Your task to perform on an android device: open wifi settings Image 0: 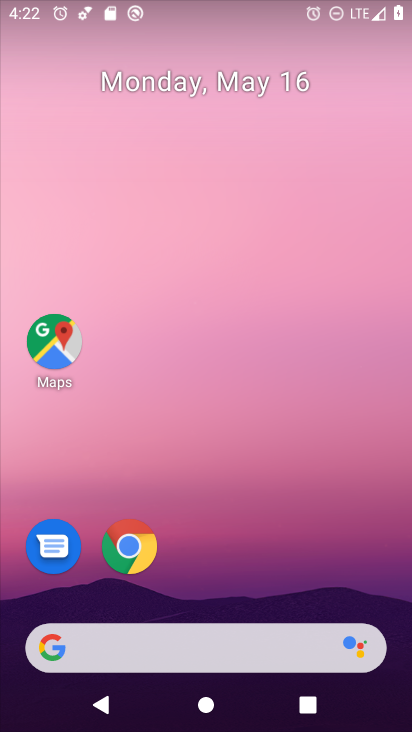
Step 0: drag from (325, 569) to (312, 71)
Your task to perform on an android device: open wifi settings Image 1: 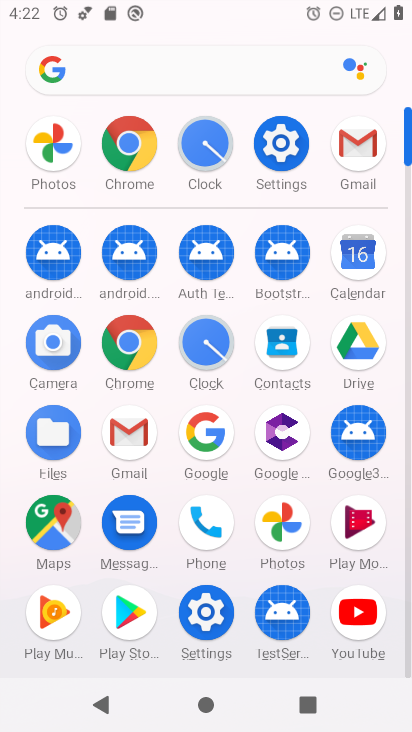
Step 1: click (299, 152)
Your task to perform on an android device: open wifi settings Image 2: 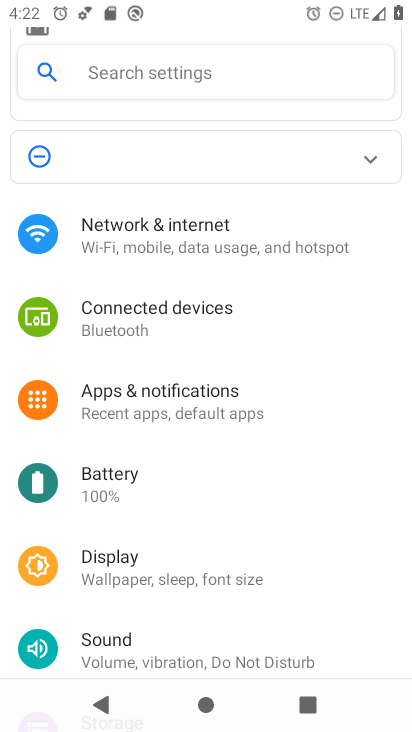
Step 2: click (240, 250)
Your task to perform on an android device: open wifi settings Image 3: 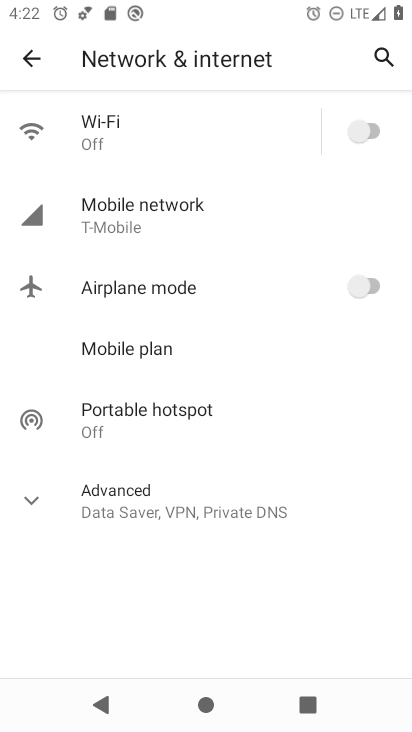
Step 3: click (116, 127)
Your task to perform on an android device: open wifi settings Image 4: 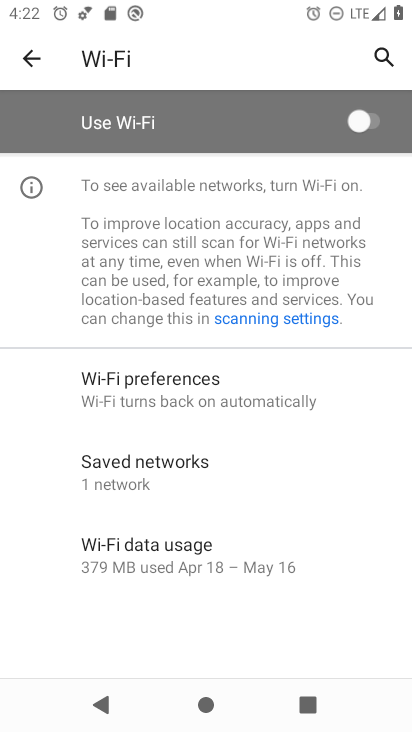
Step 4: task complete